Your task to perform on an android device: What's on my calendar tomorrow? Image 0: 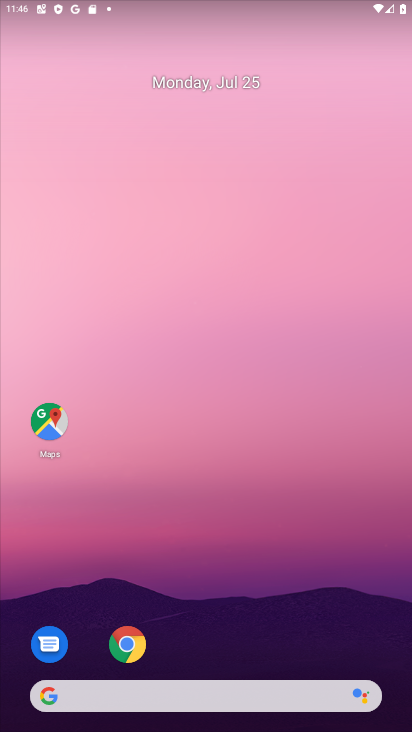
Step 0: drag from (277, 664) to (256, 15)
Your task to perform on an android device: What's on my calendar tomorrow? Image 1: 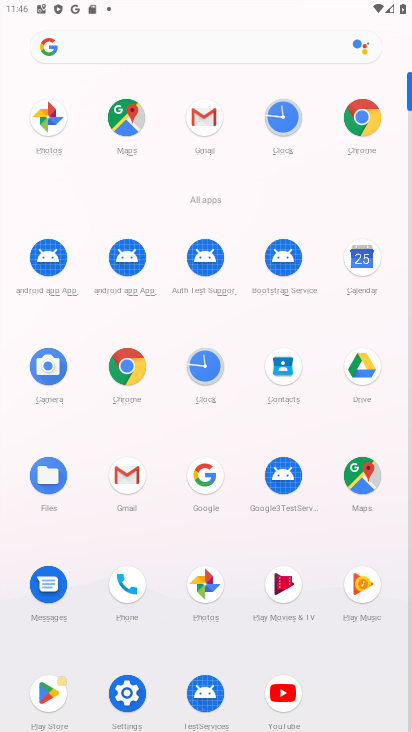
Step 1: click (357, 261)
Your task to perform on an android device: What's on my calendar tomorrow? Image 2: 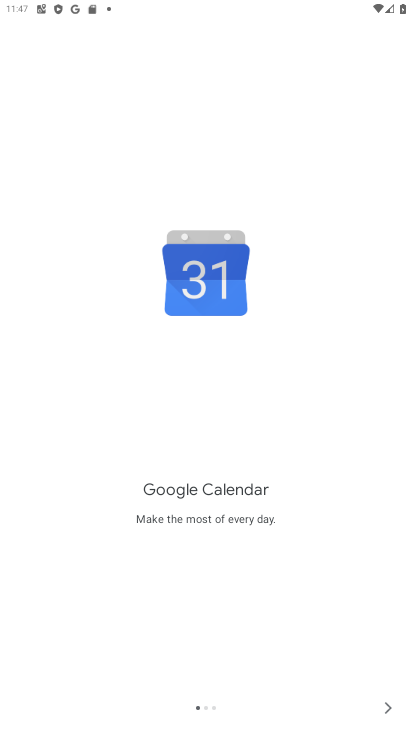
Step 2: click (389, 712)
Your task to perform on an android device: What's on my calendar tomorrow? Image 3: 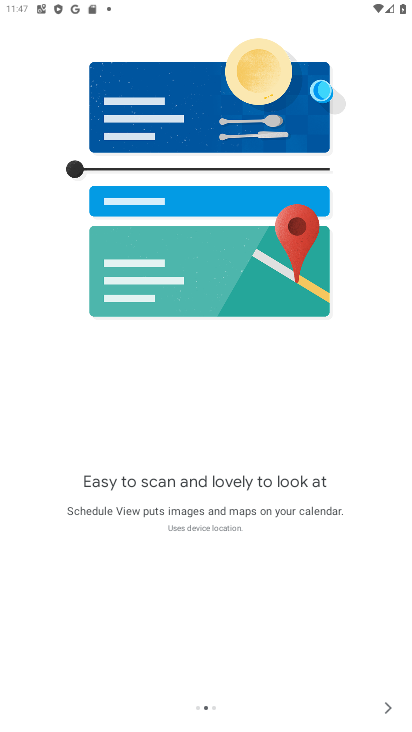
Step 3: click (389, 712)
Your task to perform on an android device: What's on my calendar tomorrow? Image 4: 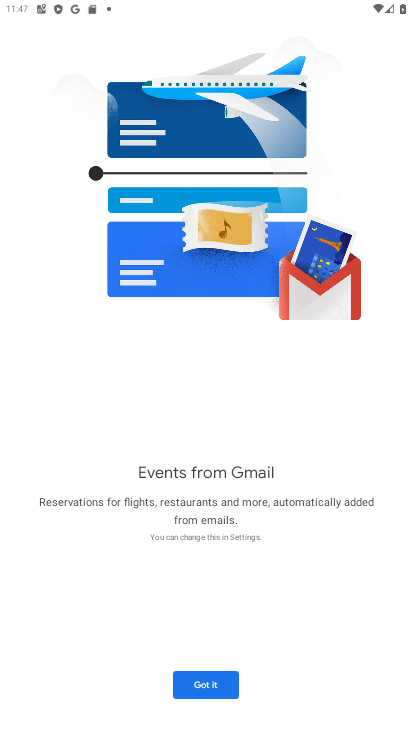
Step 4: click (213, 685)
Your task to perform on an android device: What's on my calendar tomorrow? Image 5: 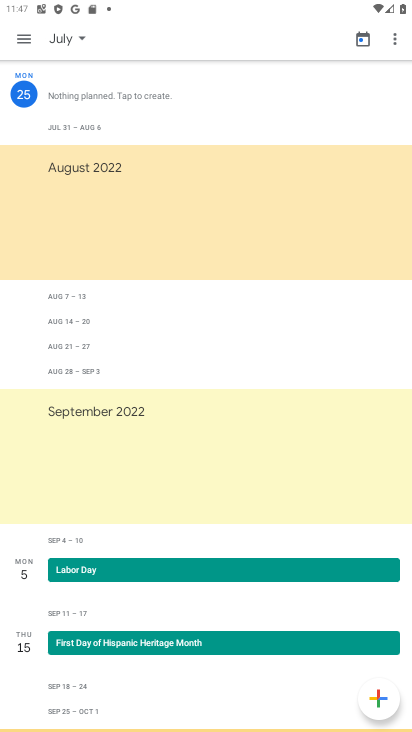
Step 5: click (24, 39)
Your task to perform on an android device: What's on my calendar tomorrow? Image 6: 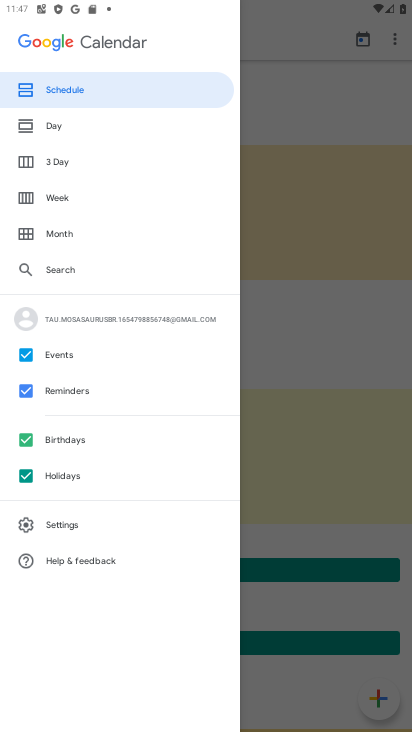
Step 6: click (47, 124)
Your task to perform on an android device: What's on my calendar tomorrow? Image 7: 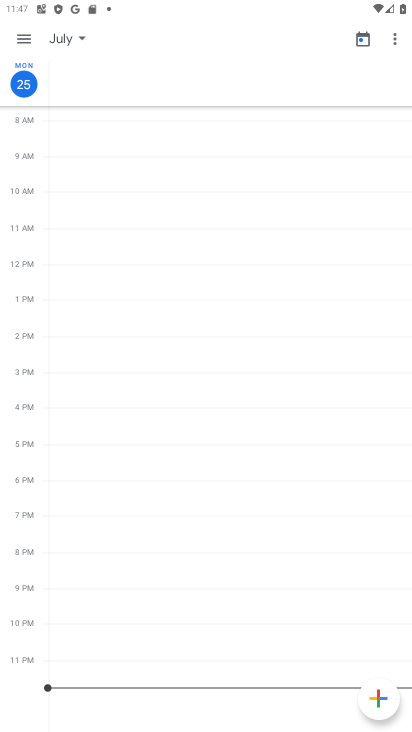
Step 7: click (81, 39)
Your task to perform on an android device: What's on my calendar tomorrow? Image 8: 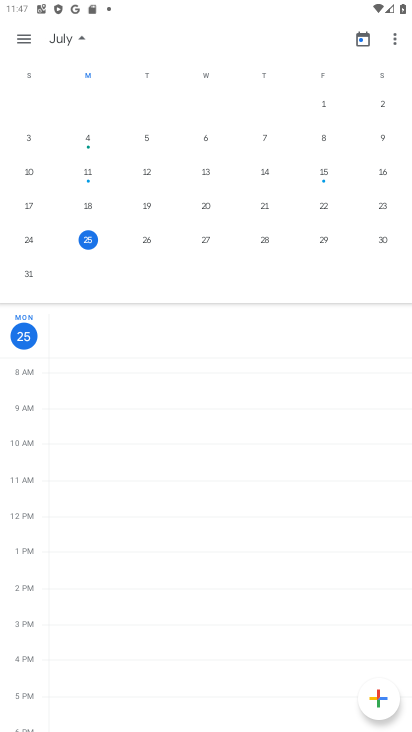
Step 8: click (143, 238)
Your task to perform on an android device: What's on my calendar tomorrow? Image 9: 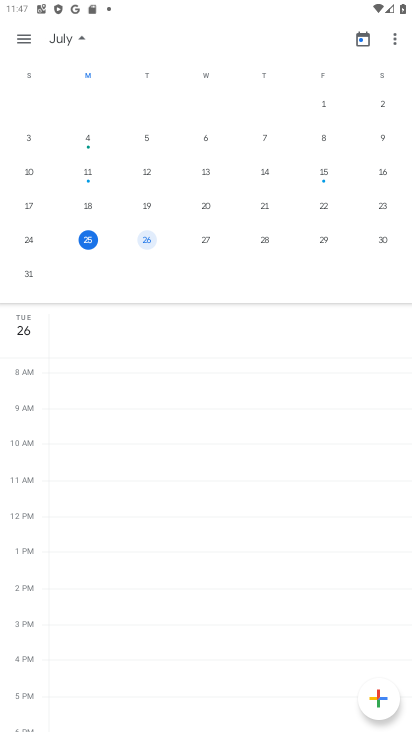
Step 9: drag from (116, 300) to (126, 138)
Your task to perform on an android device: What's on my calendar tomorrow? Image 10: 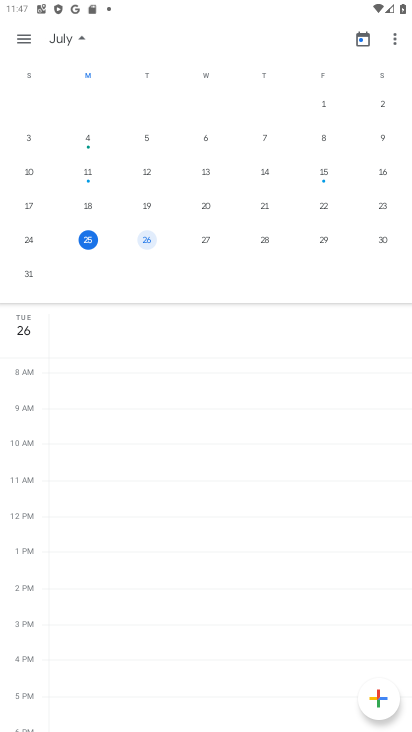
Step 10: drag from (109, 292) to (106, 121)
Your task to perform on an android device: What's on my calendar tomorrow? Image 11: 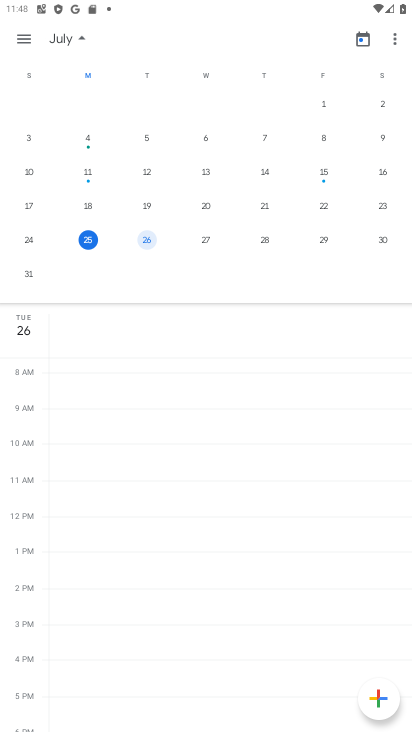
Step 11: click (25, 36)
Your task to perform on an android device: What's on my calendar tomorrow? Image 12: 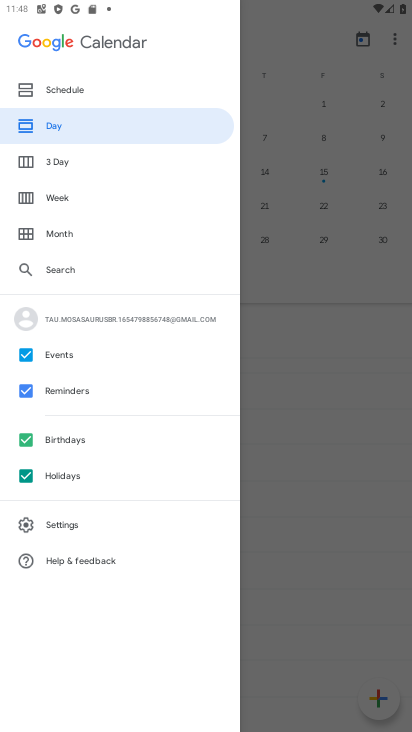
Step 12: click (33, 120)
Your task to perform on an android device: What's on my calendar tomorrow? Image 13: 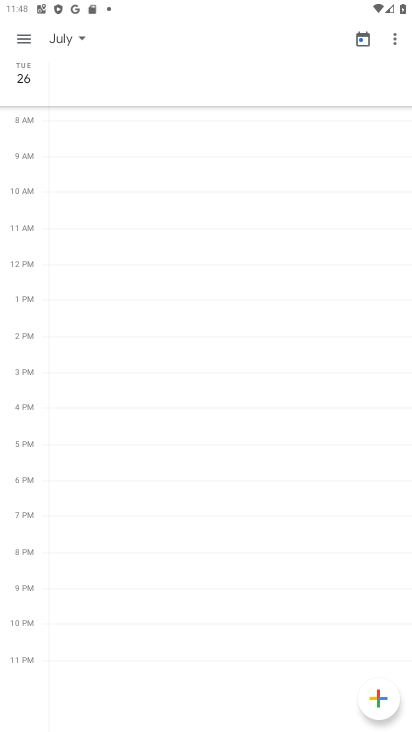
Step 13: task complete